Your task to perform on an android device: Open the Play Movies app and select the watchlist tab. Image 0: 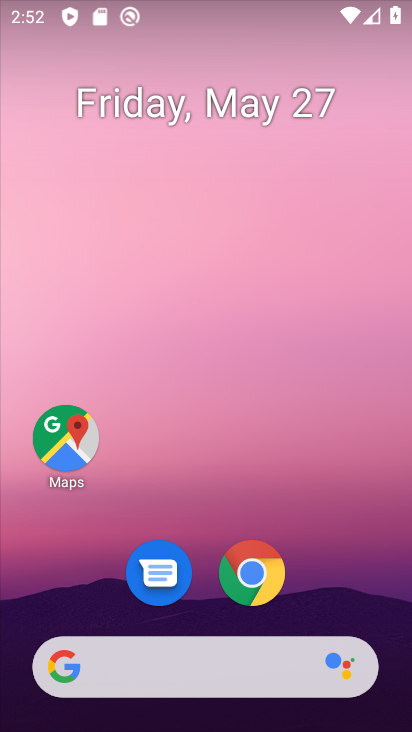
Step 0: drag from (235, 492) to (204, 0)
Your task to perform on an android device: Open the Play Movies app and select the watchlist tab. Image 1: 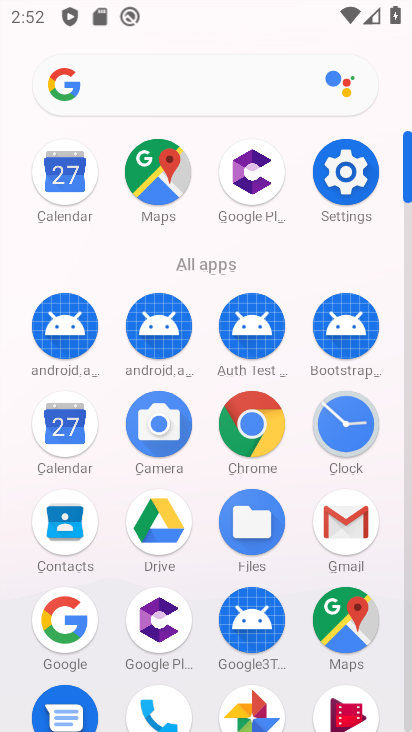
Step 1: drag from (290, 474) to (280, 253)
Your task to perform on an android device: Open the Play Movies app and select the watchlist tab. Image 2: 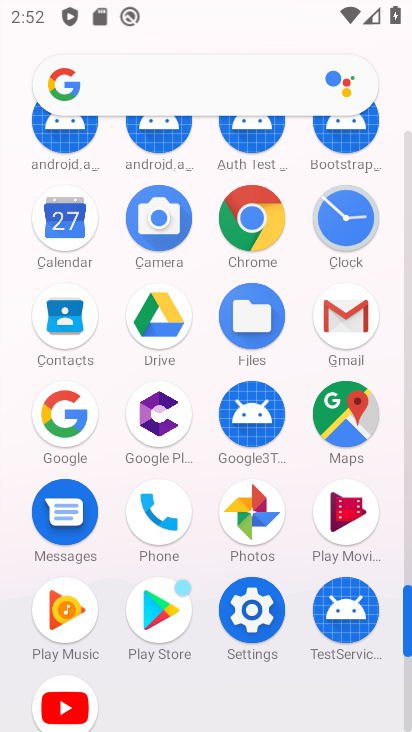
Step 2: click (348, 518)
Your task to perform on an android device: Open the Play Movies app and select the watchlist tab. Image 3: 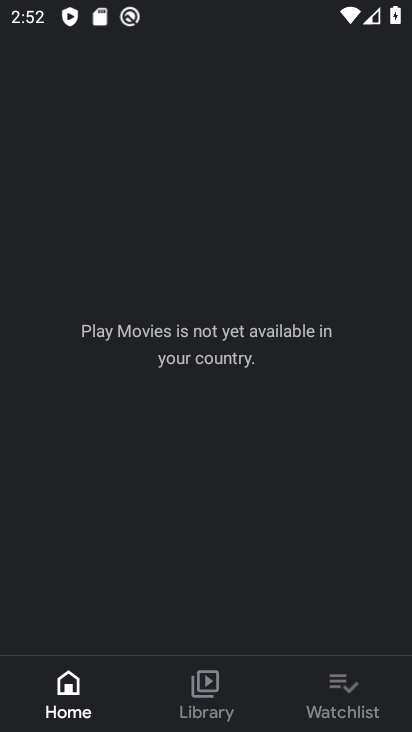
Step 3: click (354, 690)
Your task to perform on an android device: Open the Play Movies app and select the watchlist tab. Image 4: 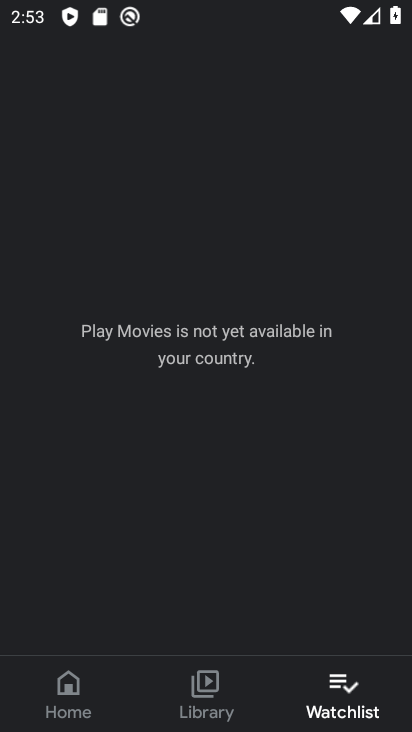
Step 4: task complete